Your task to perform on an android device: What is the recent news? Image 0: 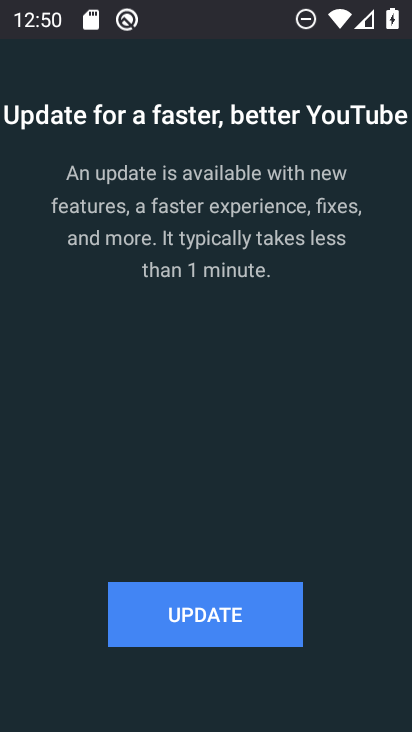
Step 0: press home button
Your task to perform on an android device: What is the recent news? Image 1: 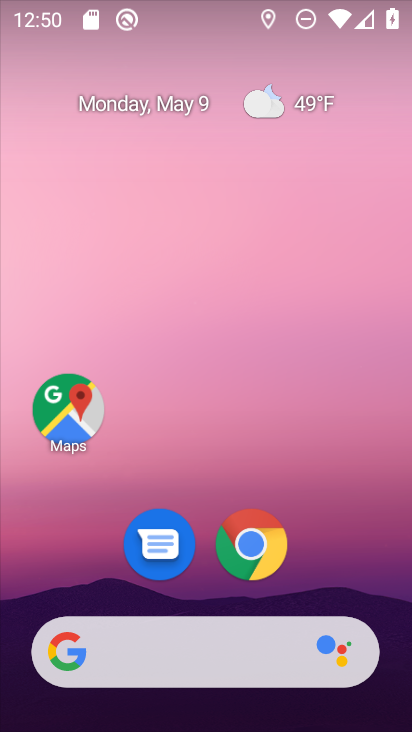
Step 1: drag from (317, 571) to (307, 127)
Your task to perform on an android device: What is the recent news? Image 2: 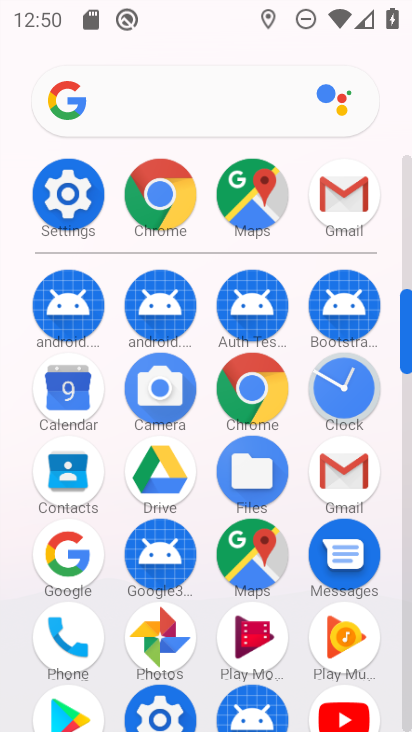
Step 2: click (164, 218)
Your task to perform on an android device: What is the recent news? Image 3: 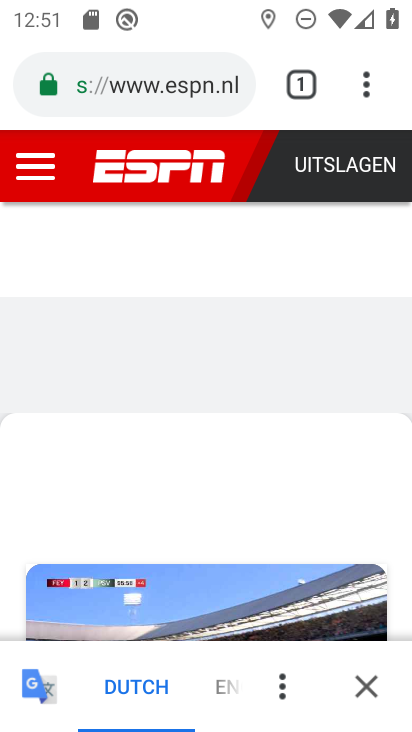
Step 3: drag from (369, 88) to (107, 184)
Your task to perform on an android device: What is the recent news? Image 4: 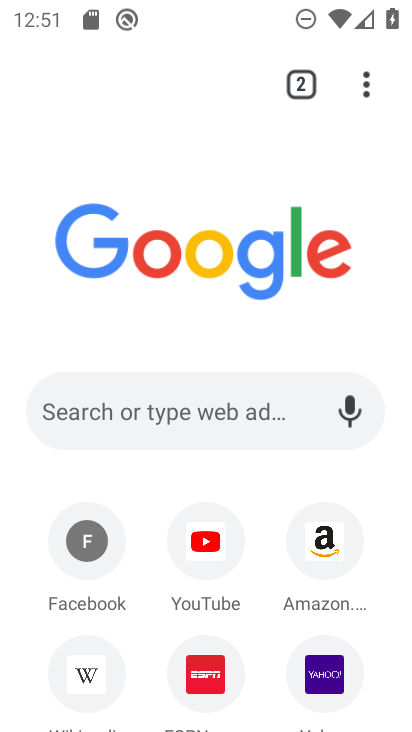
Step 4: drag from (406, 539) to (373, 126)
Your task to perform on an android device: What is the recent news? Image 5: 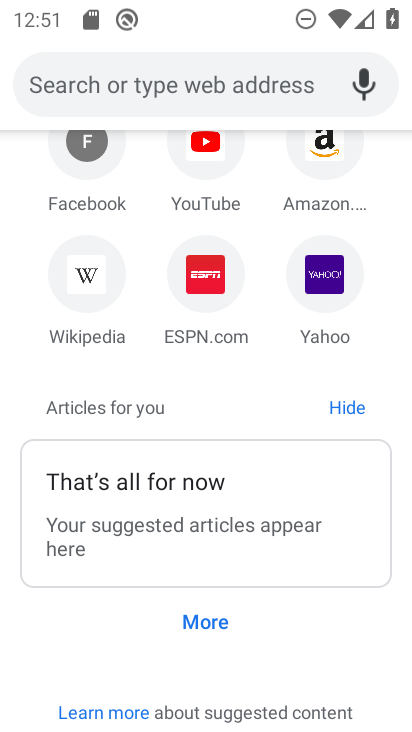
Step 5: drag from (280, 682) to (298, 210)
Your task to perform on an android device: What is the recent news? Image 6: 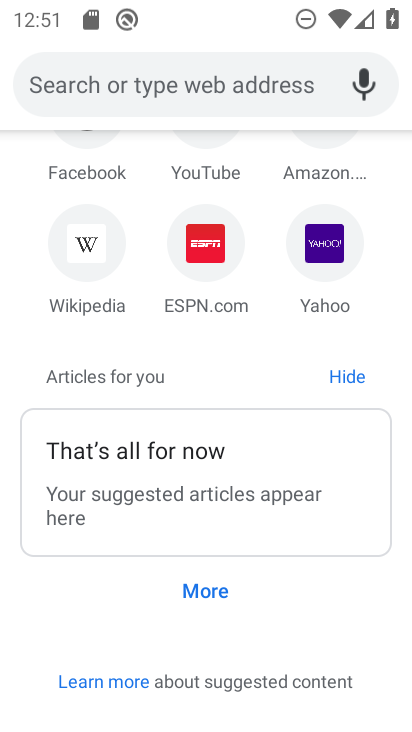
Step 6: click (206, 586)
Your task to perform on an android device: What is the recent news? Image 7: 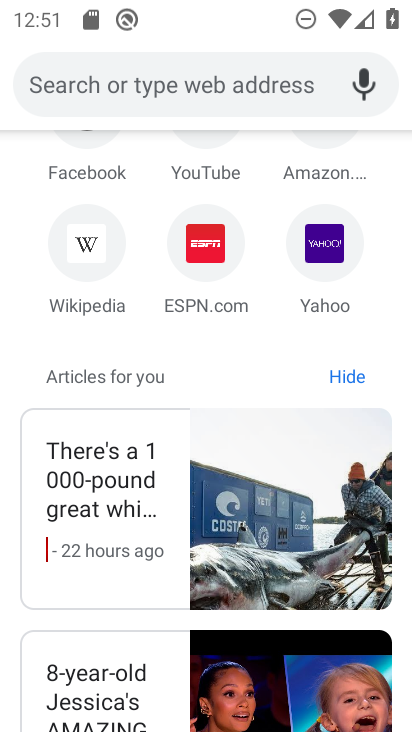
Step 7: task complete